Your task to perform on an android device: Check the weather Image 0: 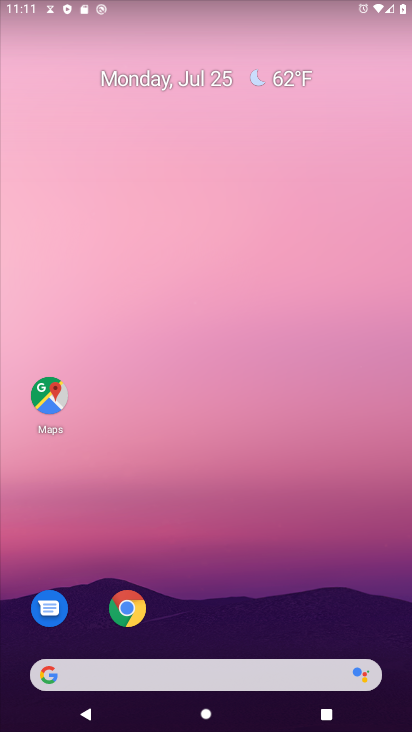
Step 0: click (125, 608)
Your task to perform on an android device: Check the weather Image 1: 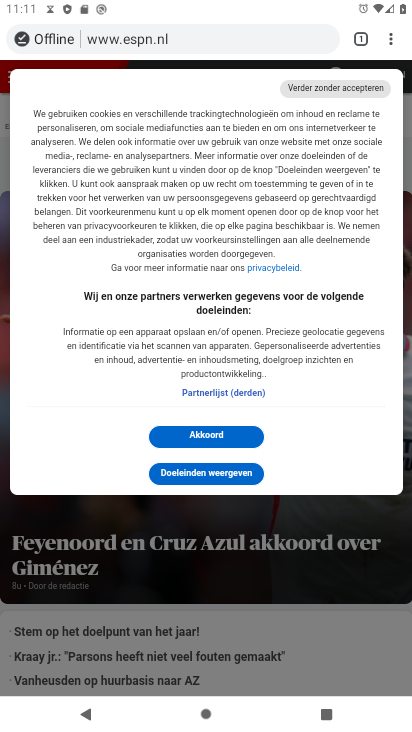
Step 1: click (278, 37)
Your task to perform on an android device: Check the weather Image 2: 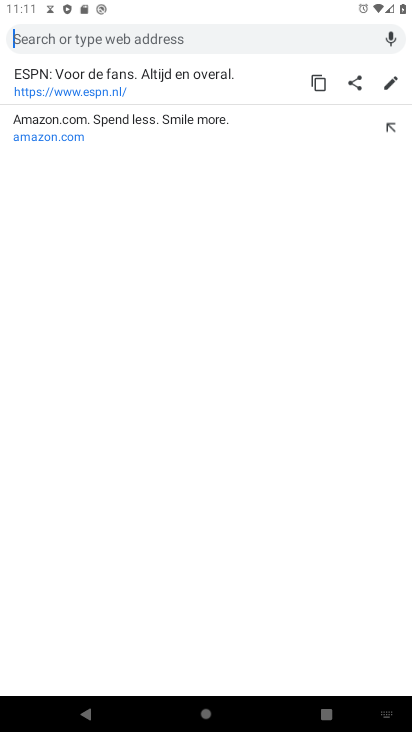
Step 2: type "weather"
Your task to perform on an android device: Check the weather Image 3: 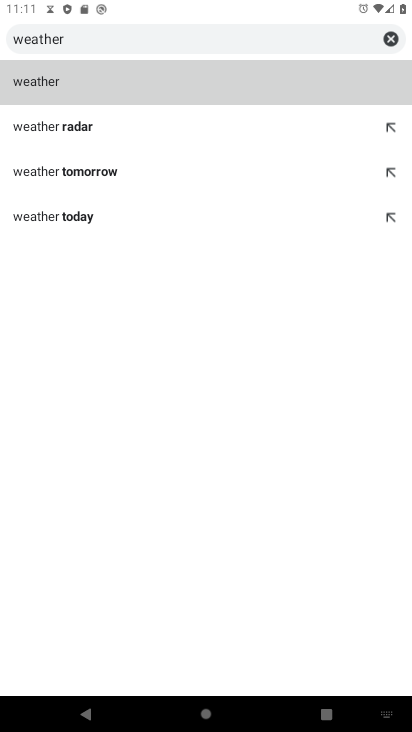
Step 3: click (45, 84)
Your task to perform on an android device: Check the weather Image 4: 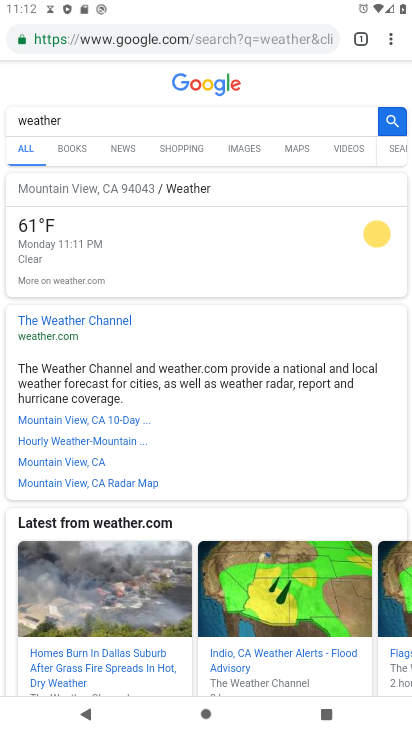
Step 4: task complete